Your task to perform on an android device: Open privacy settings Image 0: 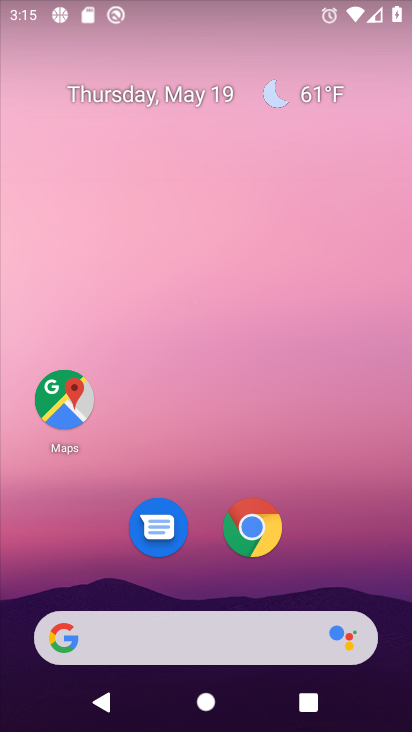
Step 0: drag from (167, 592) to (197, 163)
Your task to perform on an android device: Open privacy settings Image 1: 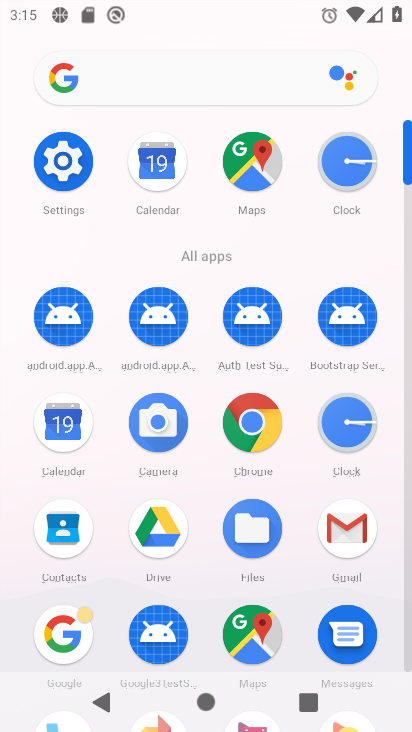
Step 1: click (76, 135)
Your task to perform on an android device: Open privacy settings Image 2: 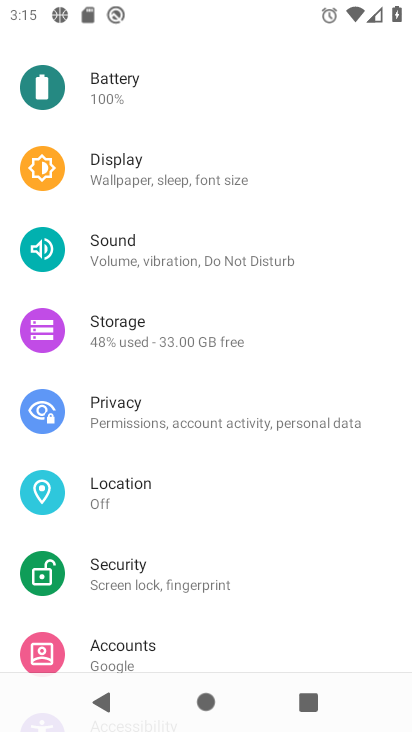
Step 2: click (122, 399)
Your task to perform on an android device: Open privacy settings Image 3: 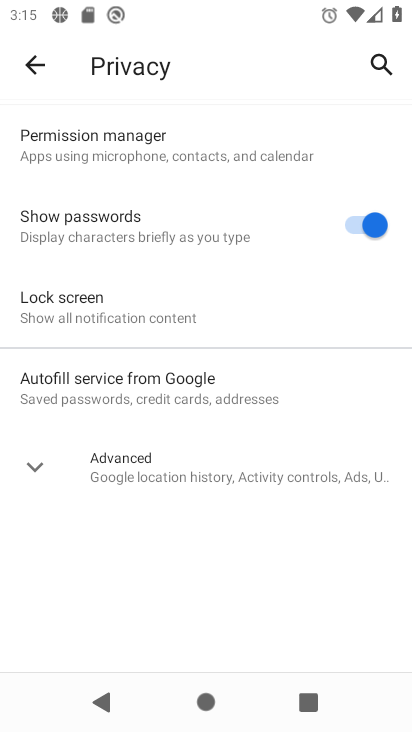
Step 3: task complete